Your task to perform on an android device: Open Amazon Image 0: 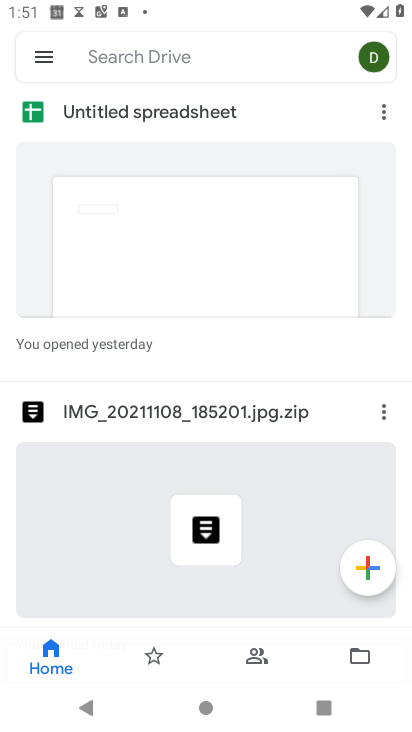
Step 0: press home button
Your task to perform on an android device: Open Amazon Image 1: 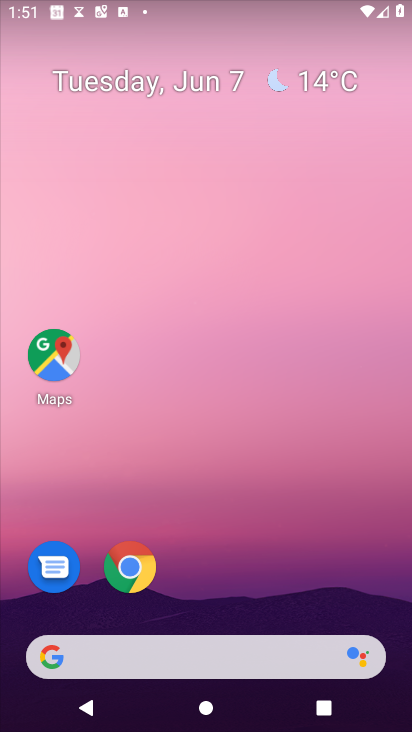
Step 1: drag from (228, 612) to (198, 5)
Your task to perform on an android device: Open Amazon Image 2: 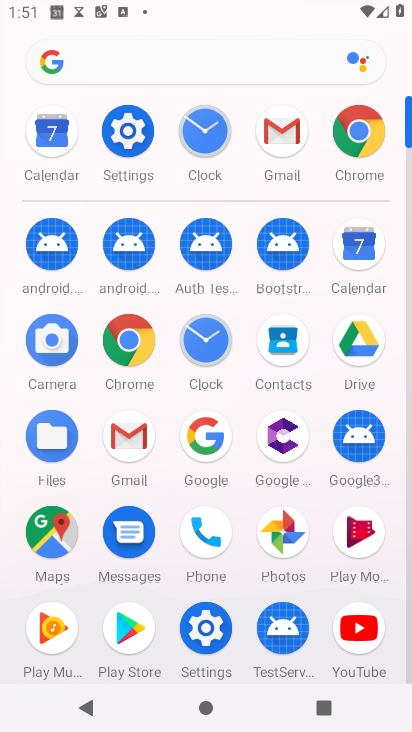
Step 2: click (137, 328)
Your task to perform on an android device: Open Amazon Image 3: 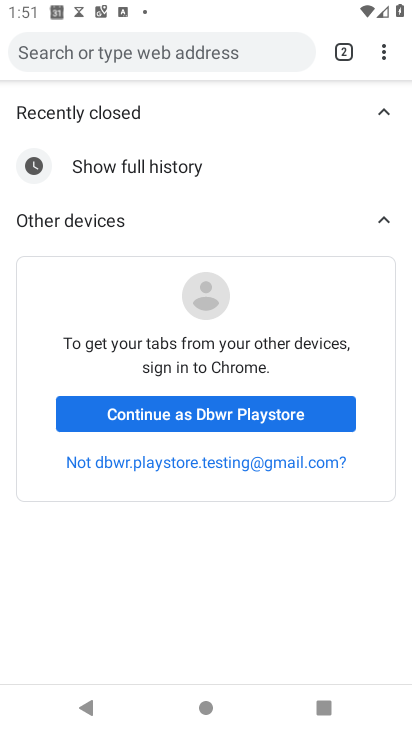
Step 3: drag from (385, 53) to (319, 85)
Your task to perform on an android device: Open Amazon Image 4: 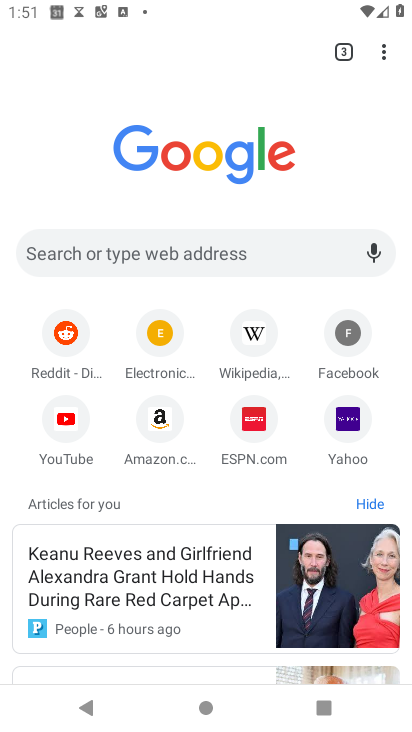
Step 4: click (169, 416)
Your task to perform on an android device: Open Amazon Image 5: 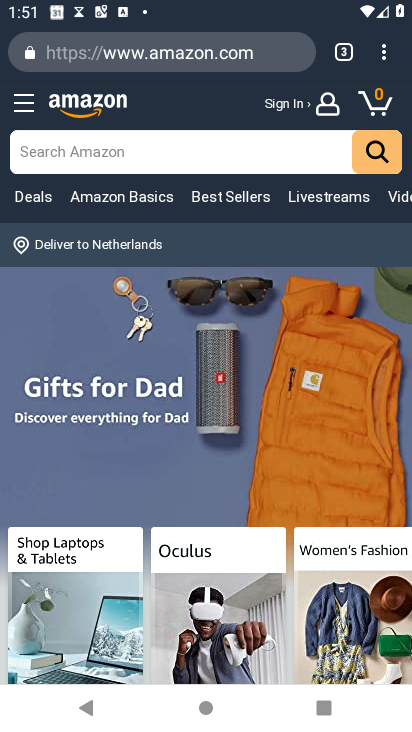
Step 5: task complete